Your task to perform on an android device: find snoozed emails in the gmail app Image 0: 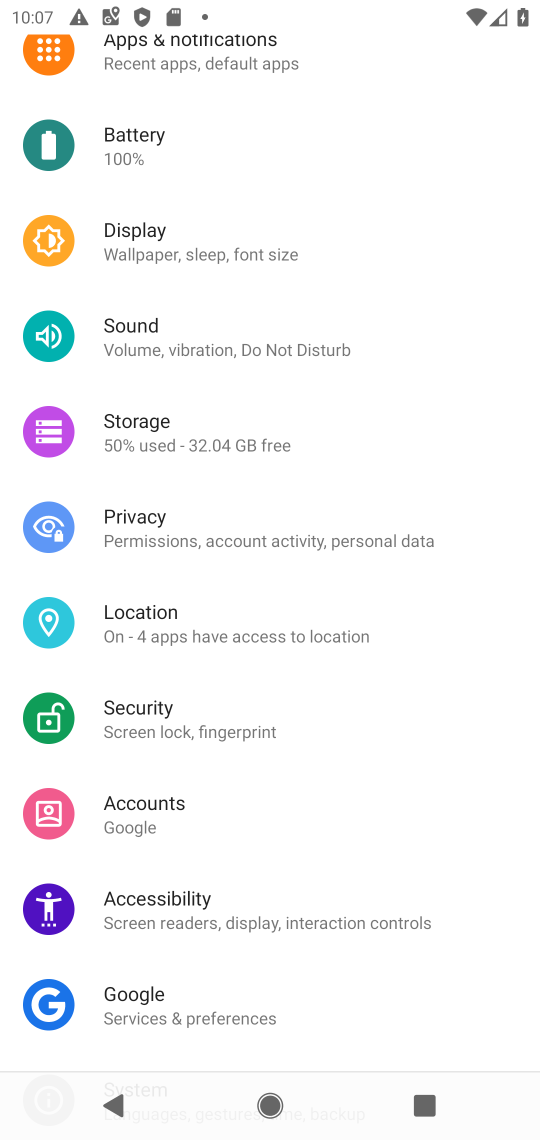
Step 0: press home button
Your task to perform on an android device: find snoozed emails in the gmail app Image 1: 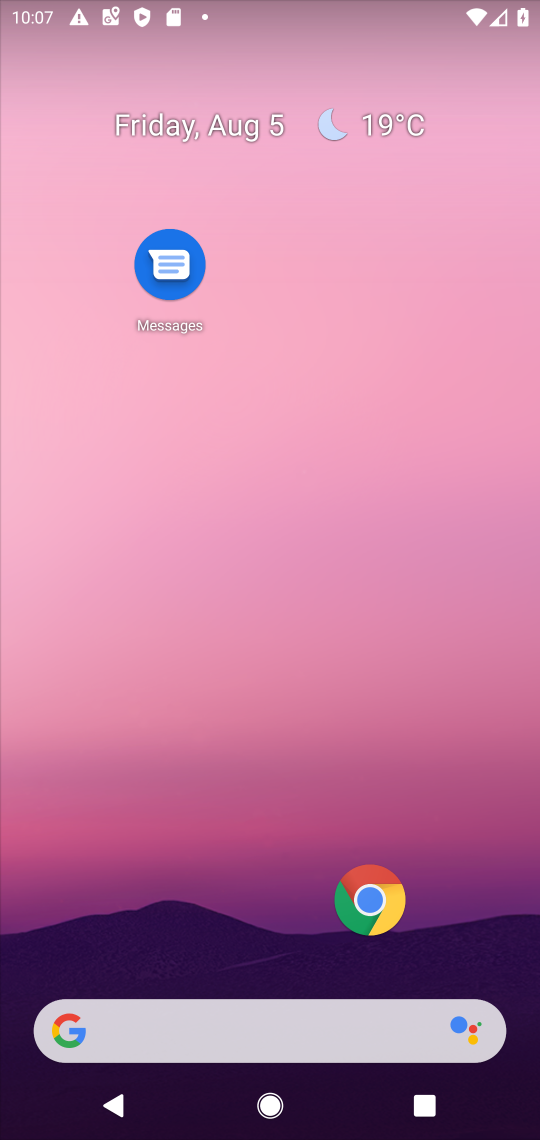
Step 1: drag from (249, 955) to (228, 76)
Your task to perform on an android device: find snoozed emails in the gmail app Image 2: 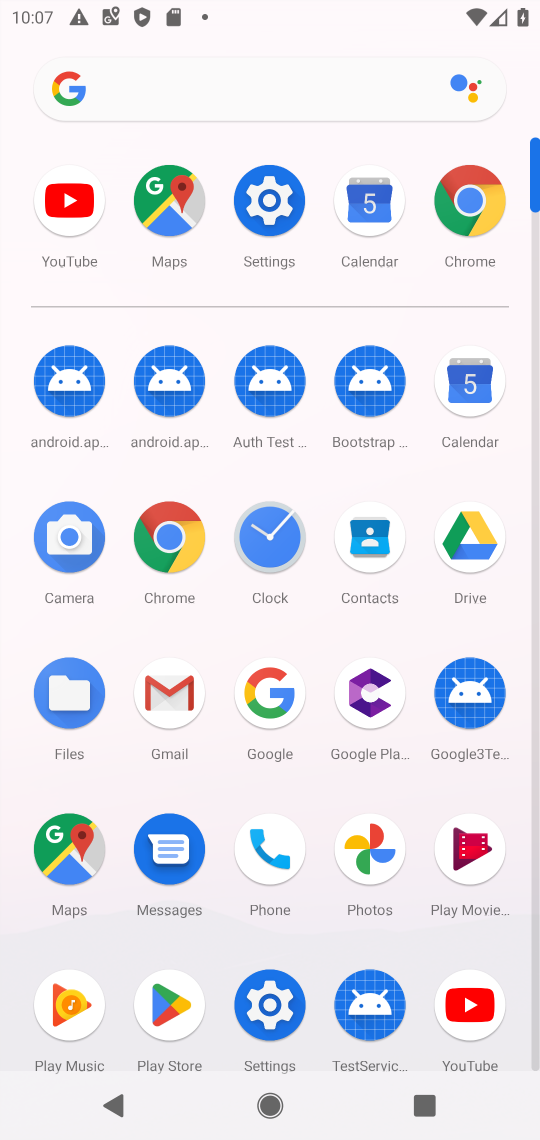
Step 2: click (171, 689)
Your task to perform on an android device: find snoozed emails in the gmail app Image 3: 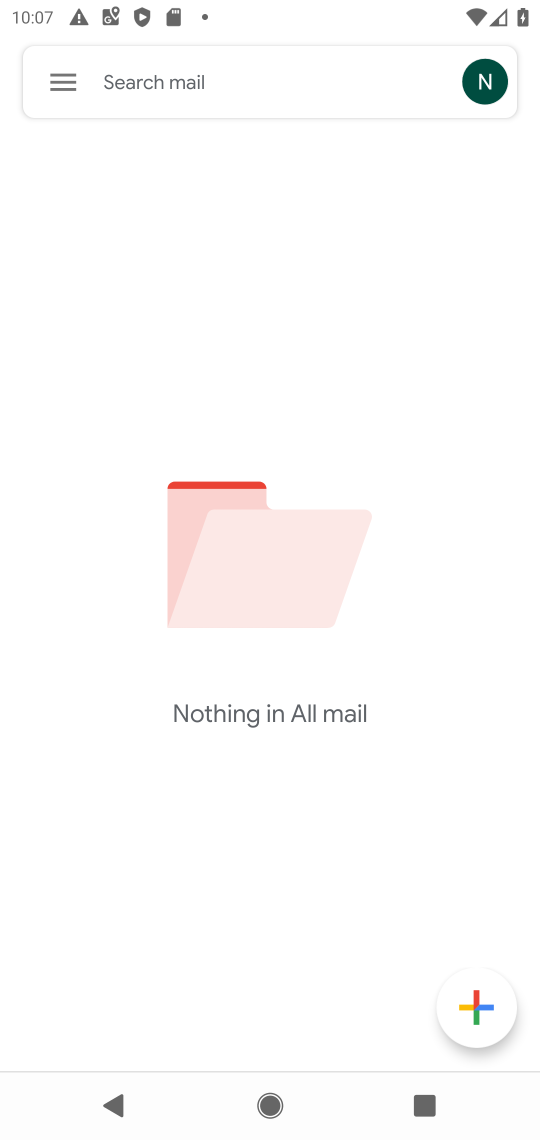
Step 3: click (51, 76)
Your task to perform on an android device: find snoozed emails in the gmail app Image 4: 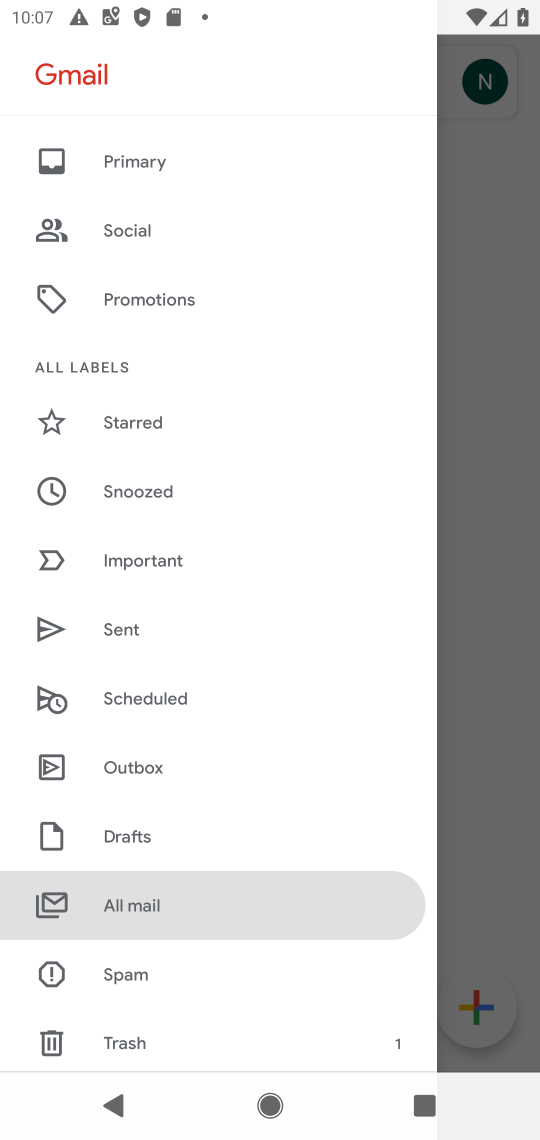
Step 4: drag from (202, 999) to (229, 425)
Your task to perform on an android device: find snoozed emails in the gmail app Image 5: 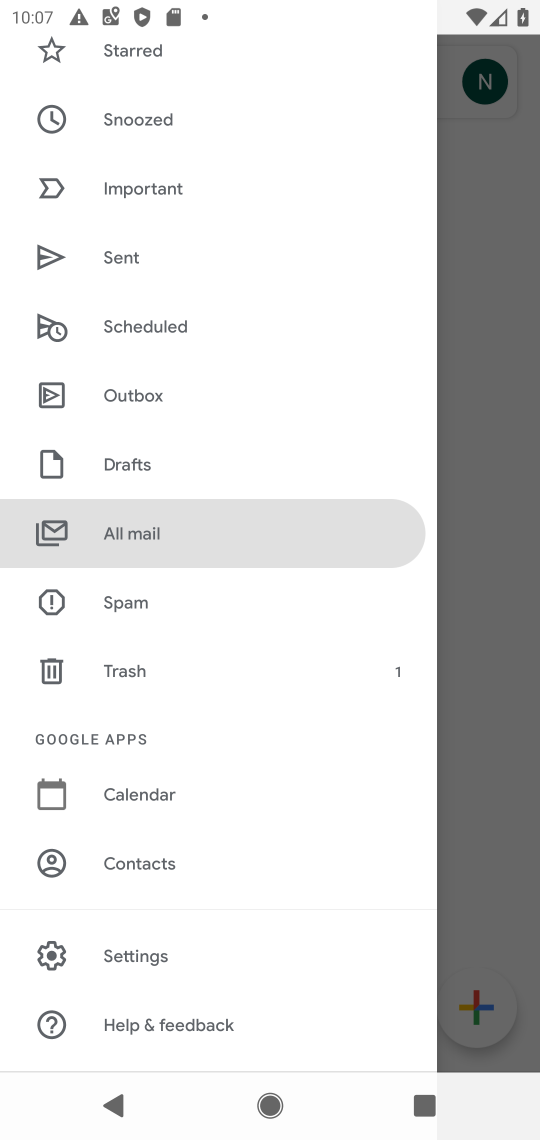
Step 5: click (148, 122)
Your task to perform on an android device: find snoozed emails in the gmail app Image 6: 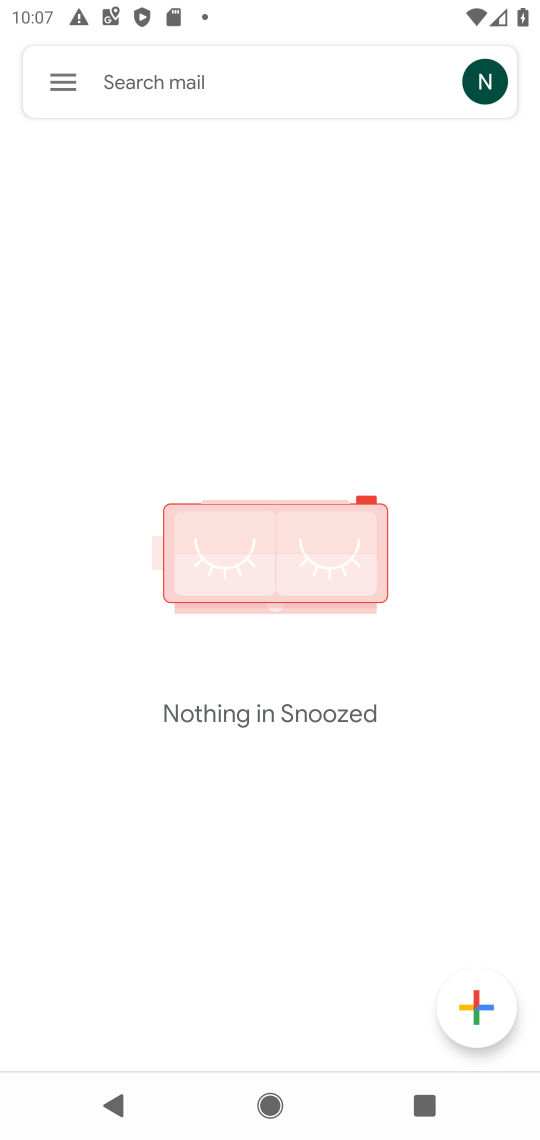
Step 6: task complete